Your task to perform on an android device: turn on data saver in the chrome app Image 0: 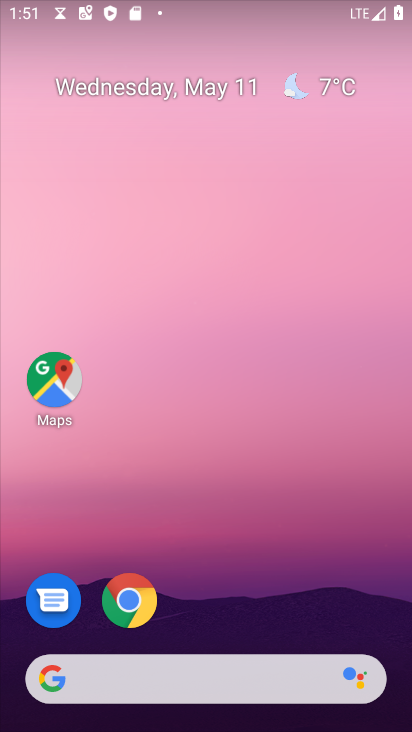
Step 0: click (132, 601)
Your task to perform on an android device: turn on data saver in the chrome app Image 1: 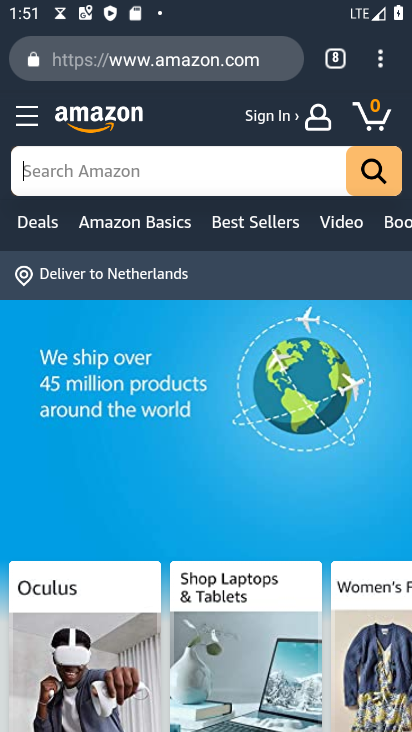
Step 1: click (379, 63)
Your task to perform on an android device: turn on data saver in the chrome app Image 2: 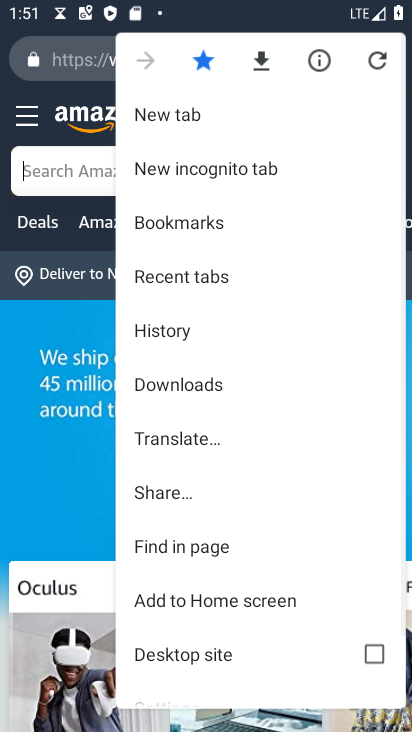
Step 2: drag from (248, 581) to (248, 256)
Your task to perform on an android device: turn on data saver in the chrome app Image 3: 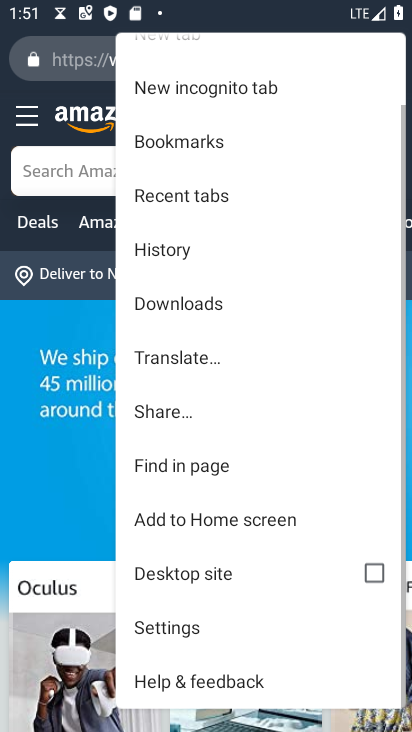
Step 3: click (189, 639)
Your task to perform on an android device: turn on data saver in the chrome app Image 4: 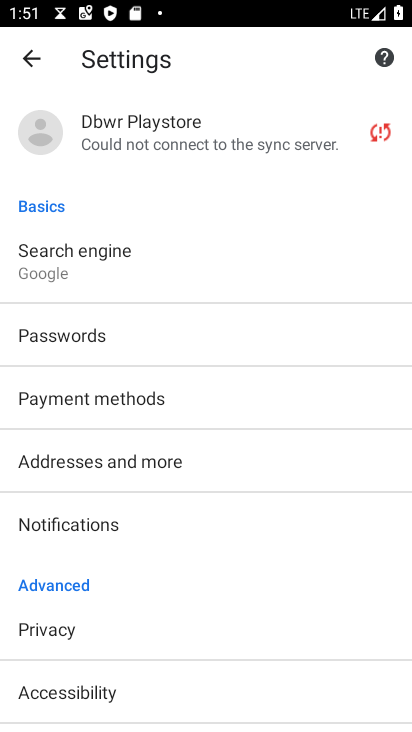
Step 4: drag from (147, 612) to (190, 245)
Your task to perform on an android device: turn on data saver in the chrome app Image 5: 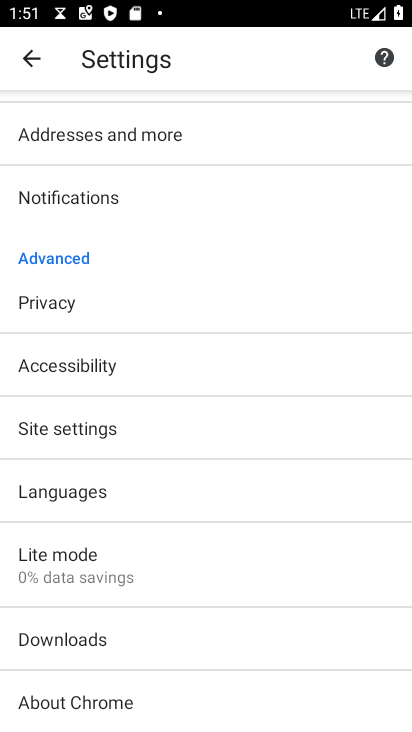
Step 5: click (108, 564)
Your task to perform on an android device: turn on data saver in the chrome app Image 6: 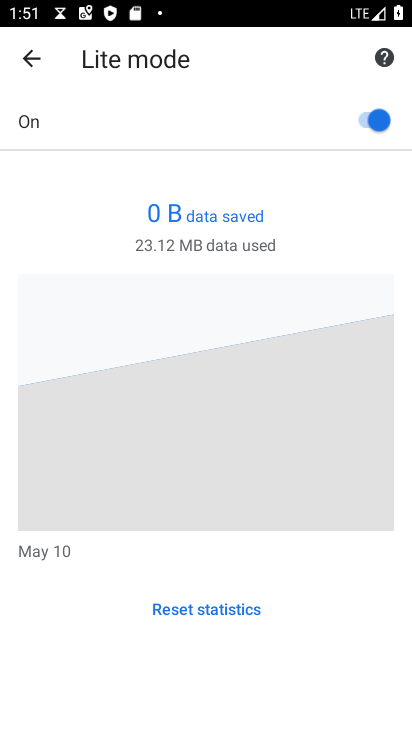
Step 6: task complete